Your task to perform on an android device: Open the stopwatch Image 0: 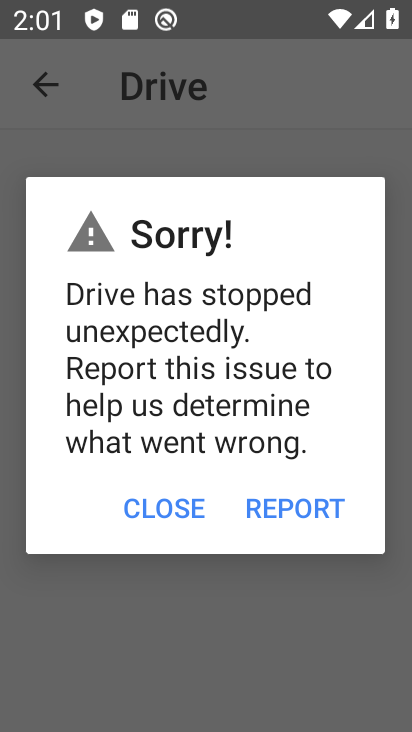
Step 0: press back button
Your task to perform on an android device: Open the stopwatch Image 1: 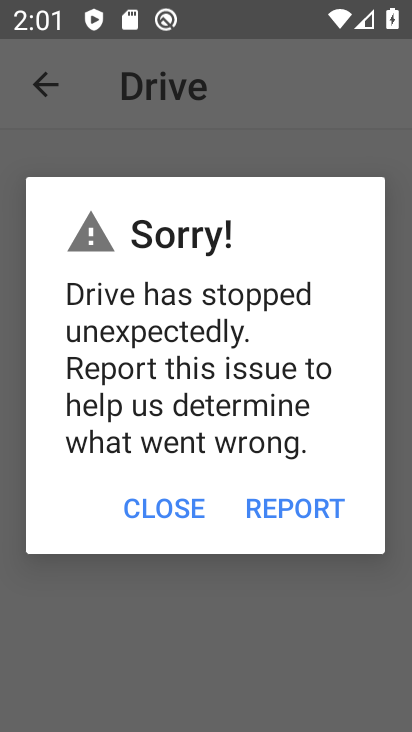
Step 1: press back button
Your task to perform on an android device: Open the stopwatch Image 2: 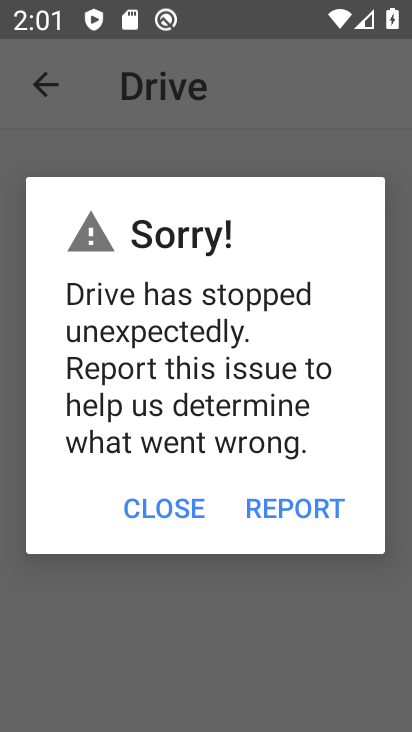
Step 2: press home button
Your task to perform on an android device: Open the stopwatch Image 3: 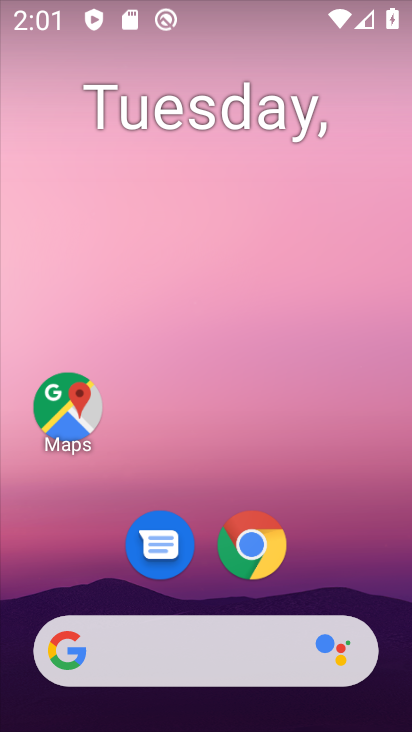
Step 3: drag from (361, 591) to (279, 43)
Your task to perform on an android device: Open the stopwatch Image 4: 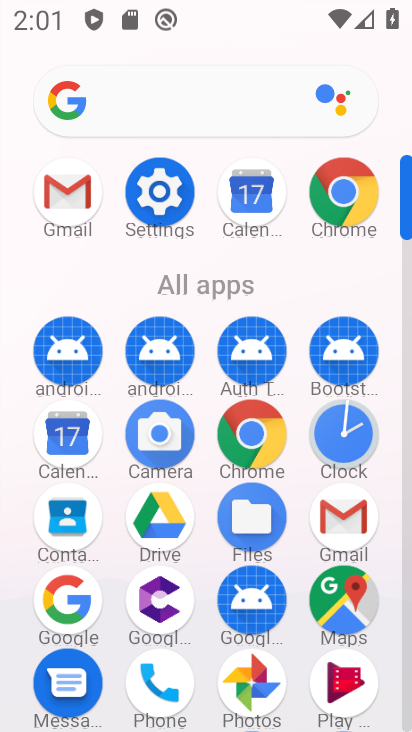
Step 4: drag from (15, 572) to (15, 295)
Your task to perform on an android device: Open the stopwatch Image 5: 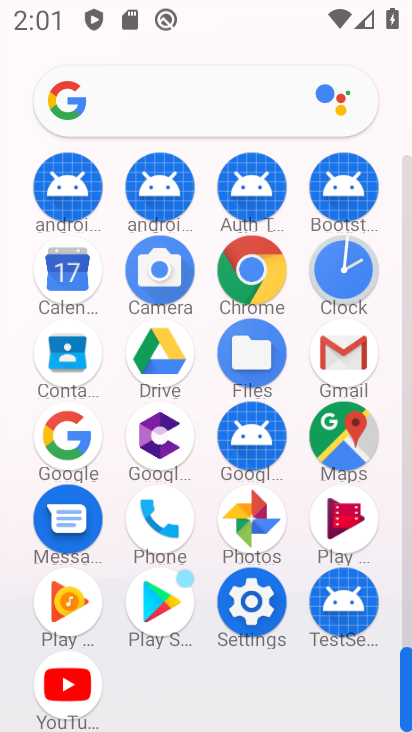
Step 5: click (347, 271)
Your task to perform on an android device: Open the stopwatch Image 6: 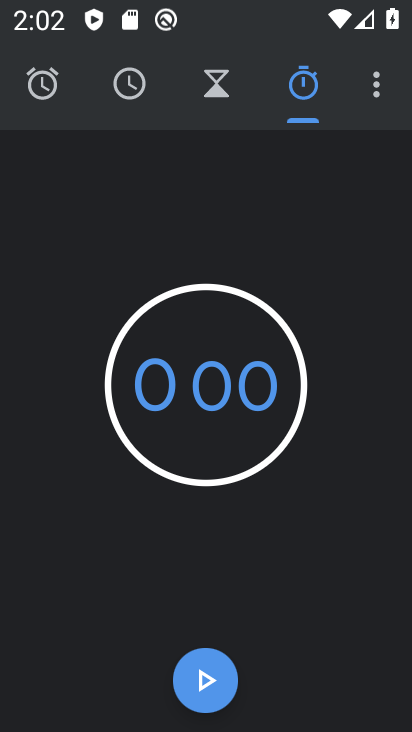
Step 6: task complete